Your task to perform on an android device: change notification settings in the gmail app Image 0: 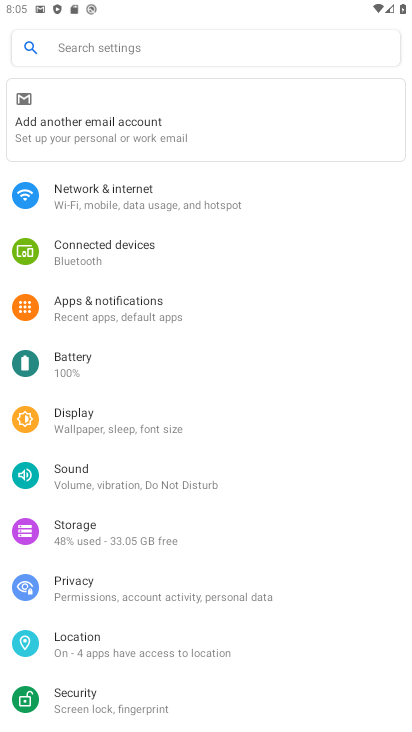
Step 0: press home button
Your task to perform on an android device: change notification settings in the gmail app Image 1: 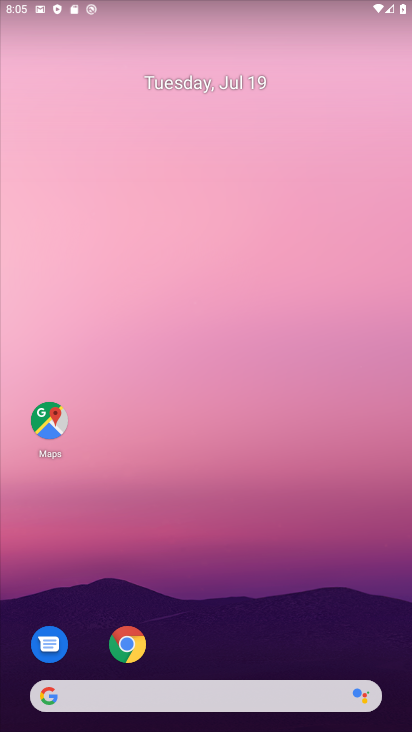
Step 1: drag from (213, 696) to (182, 212)
Your task to perform on an android device: change notification settings in the gmail app Image 2: 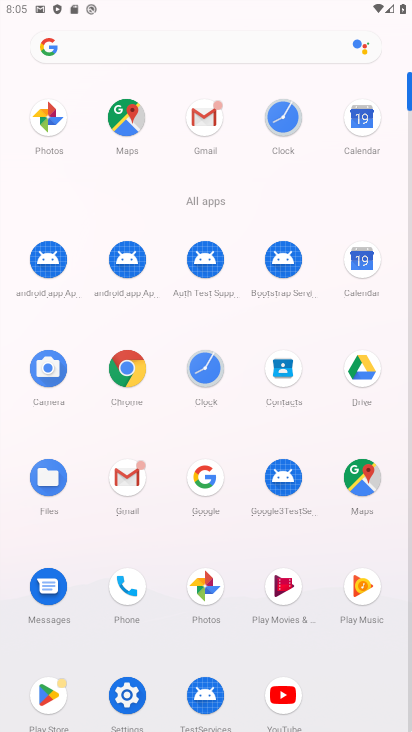
Step 2: click (130, 473)
Your task to perform on an android device: change notification settings in the gmail app Image 3: 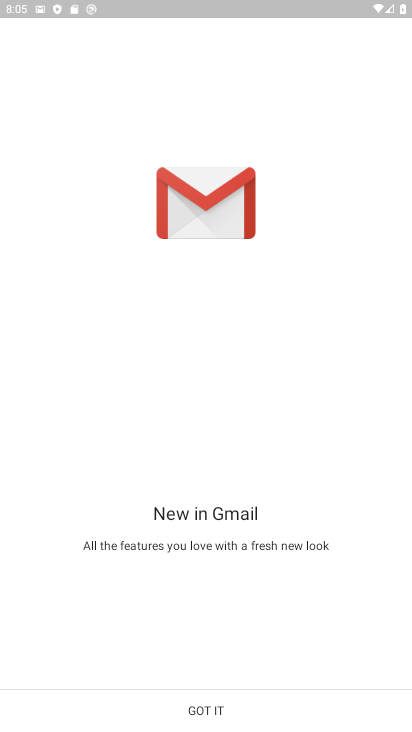
Step 3: click (214, 707)
Your task to perform on an android device: change notification settings in the gmail app Image 4: 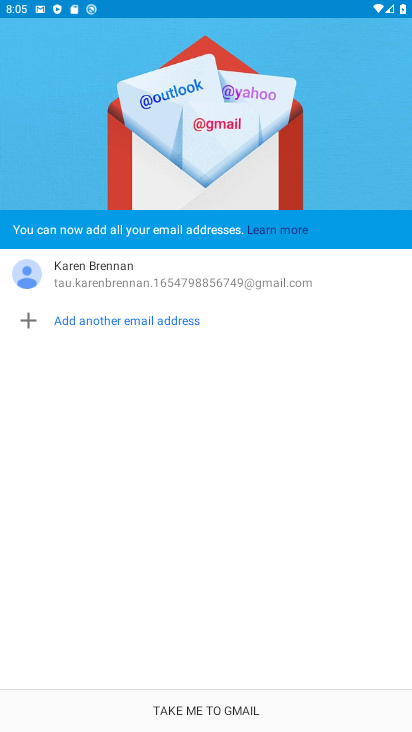
Step 4: click (214, 707)
Your task to perform on an android device: change notification settings in the gmail app Image 5: 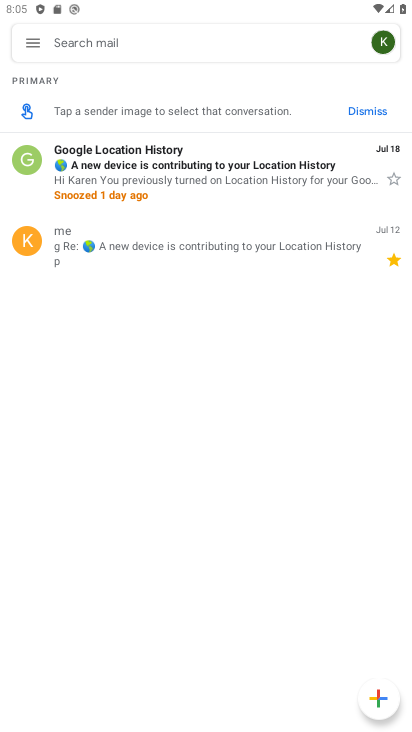
Step 5: click (28, 37)
Your task to perform on an android device: change notification settings in the gmail app Image 6: 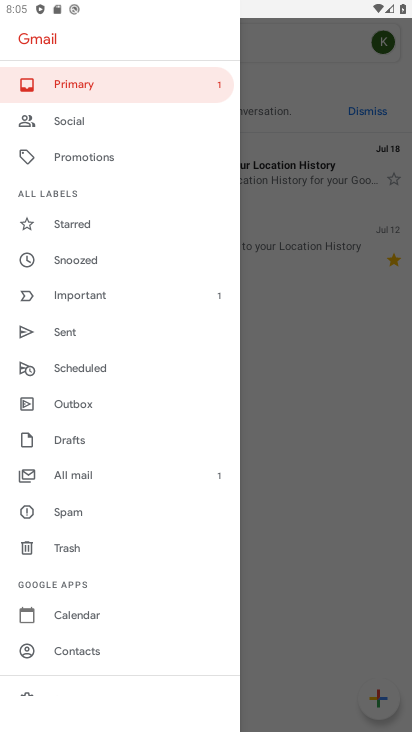
Step 6: drag from (105, 630) to (104, 380)
Your task to perform on an android device: change notification settings in the gmail app Image 7: 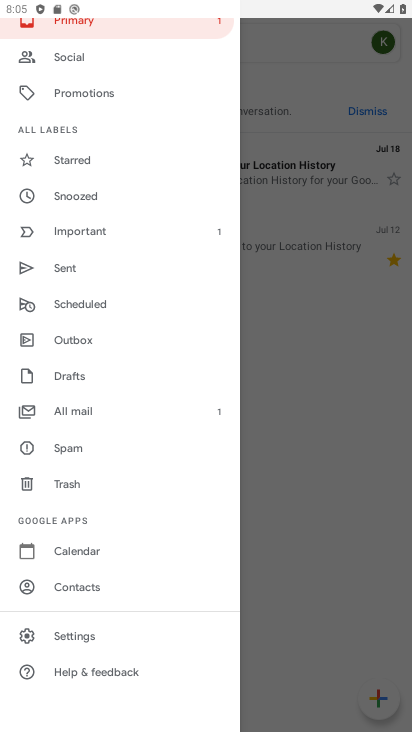
Step 7: click (80, 631)
Your task to perform on an android device: change notification settings in the gmail app Image 8: 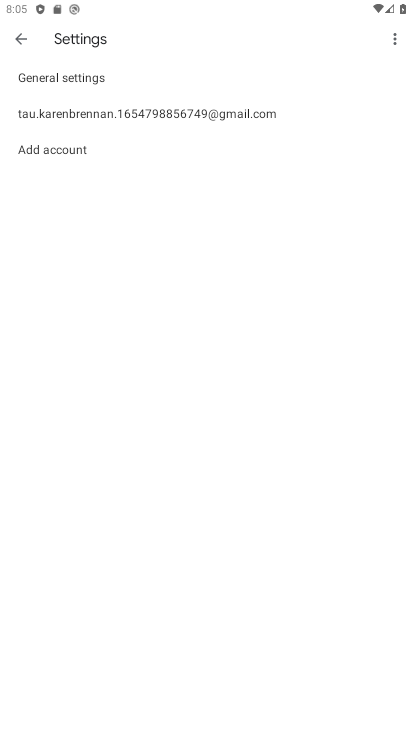
Step 8: click (155, 115)
Your task to perform on an android device: change notification settings in the gmail app Image 9: 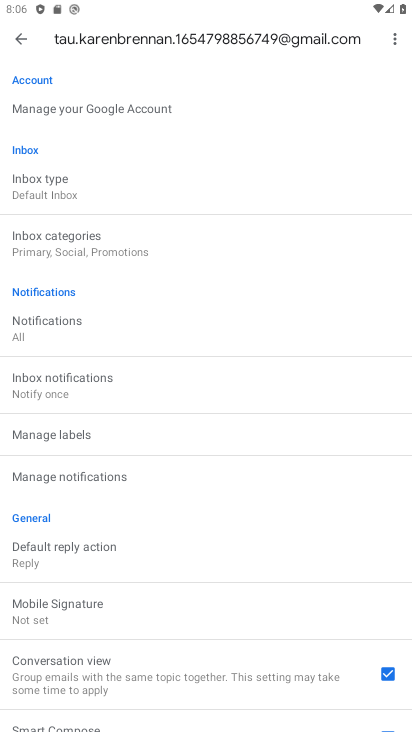
Step 9: click (52, 326)
Your task to perform on an android device: change notification settings in the gmail app Image 10: 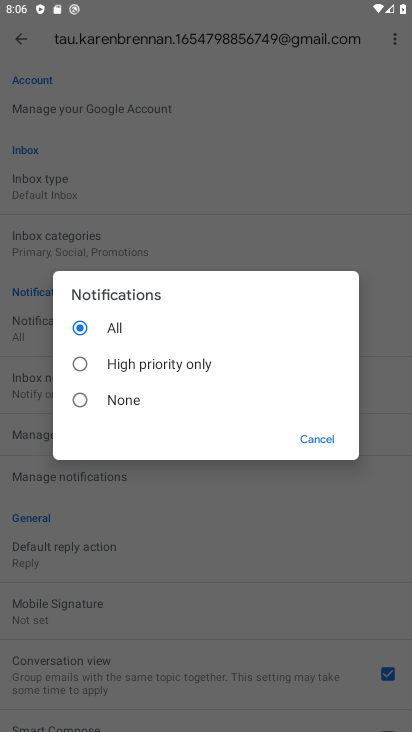
Step 10: click (81, 403)
Your task to perform on an android device: change notification settings in the gmail app Image 11: 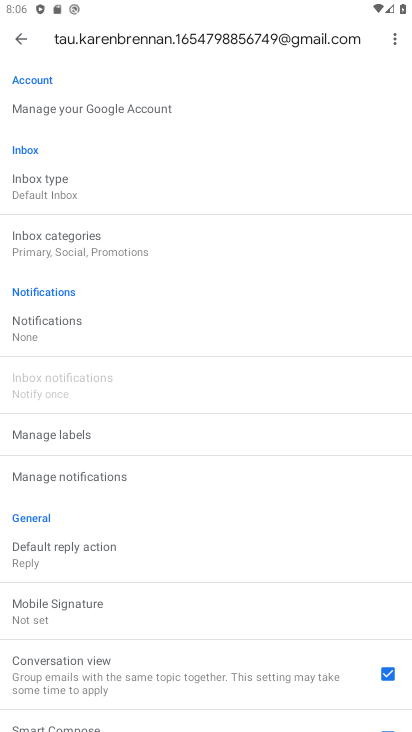
Step 11: task complete